Your task to perform on an android device: Open notification settings Image 0: 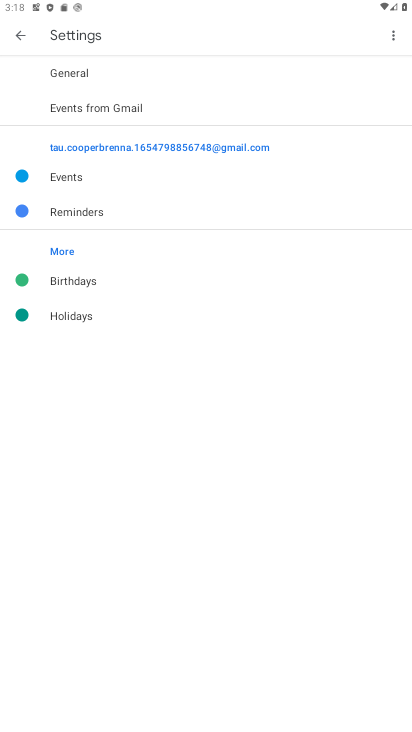
Step 0: press back button
Your task to perform on an android device: Open notification settings Image 1: 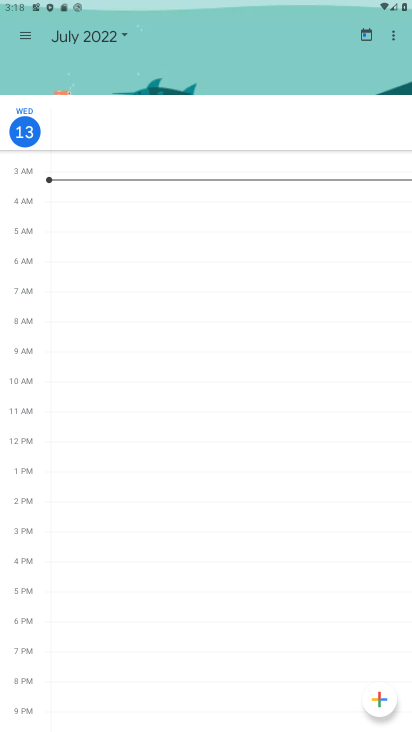
Step 1: press back button
Your task to perform on an android device: Open notification settings Image 2: 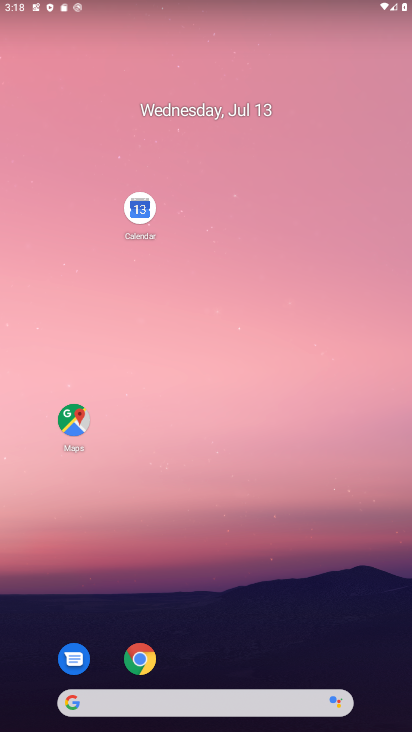
Step 2: drag from (236, 641) to (269, 125)
Your task to perform on an android device: Open notification settings Image 3: 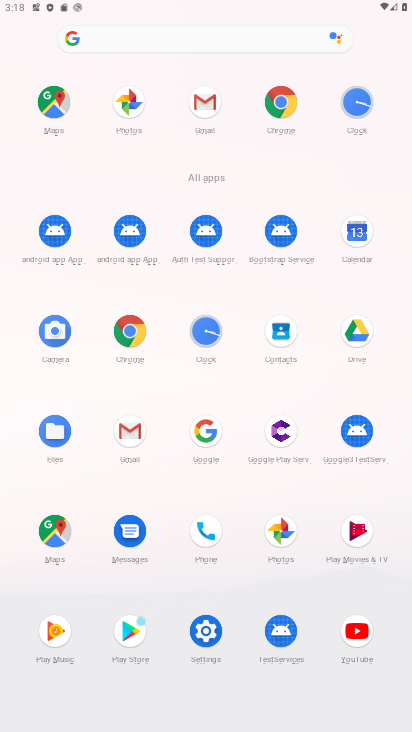
Step 3: drag from (207, 631) to (86, 225)
Your task to perform on an android device: Open notification settings Image 4: 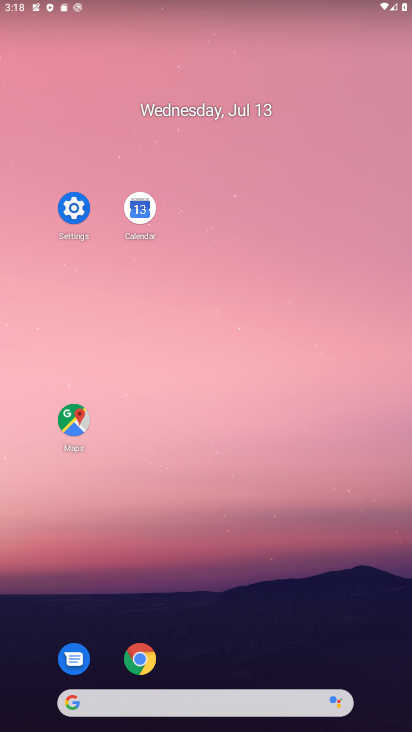
Step 4: click (72, 214)
Your task to perform on an android device: Open notification settings Image 5: 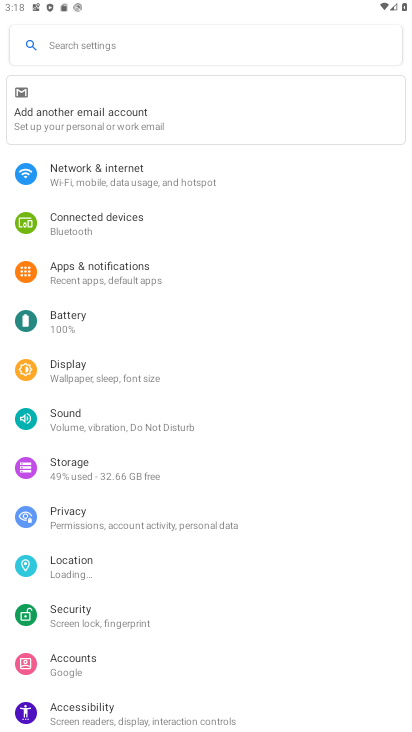
Step 5: click (151, 271)
Your task to perform on an android device: Open notification settings Image 6: 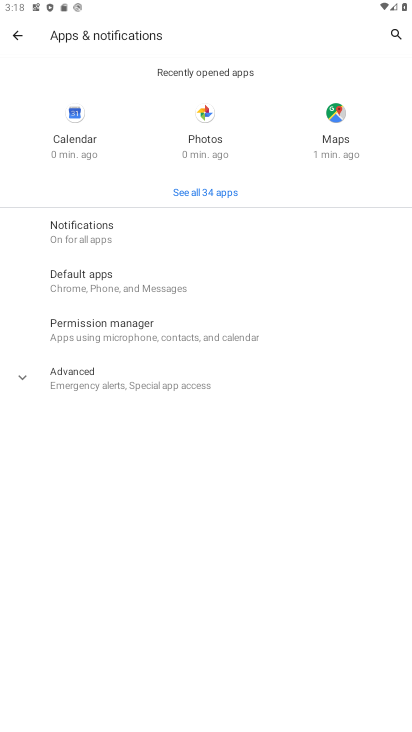
Step 6: click (125, 232)
Your task to perform on an android device: Open notification settings Image 7: 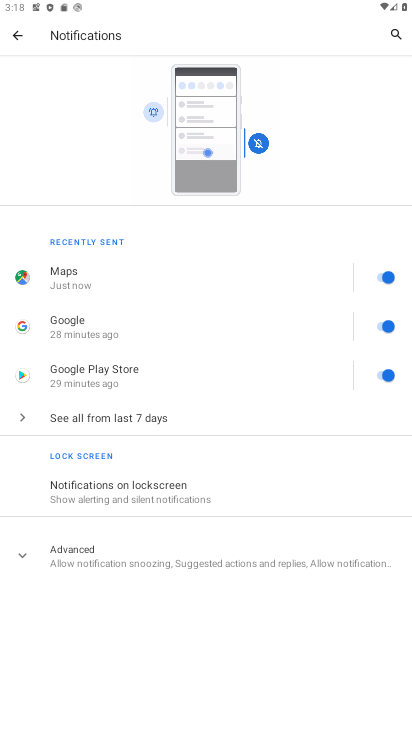
Step 7: task complete